Your task to perform on an android device: Is it going to rain tomorrow? Image 0: 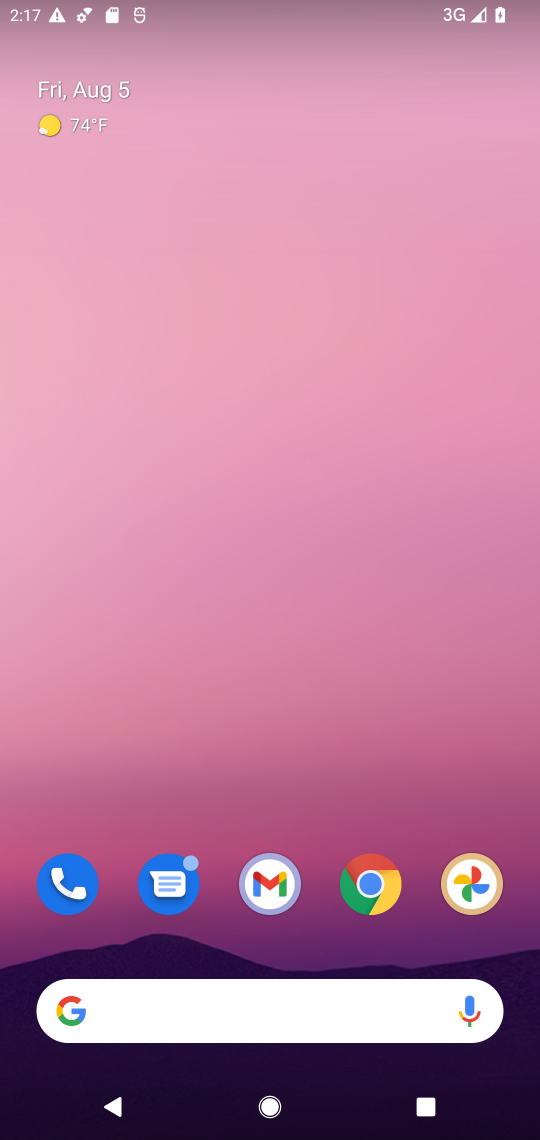
Step 0: drag from (387, 919) to (166, 64)
Your task to perform on an android device: Is it going to rain tomorrow? Image 1: 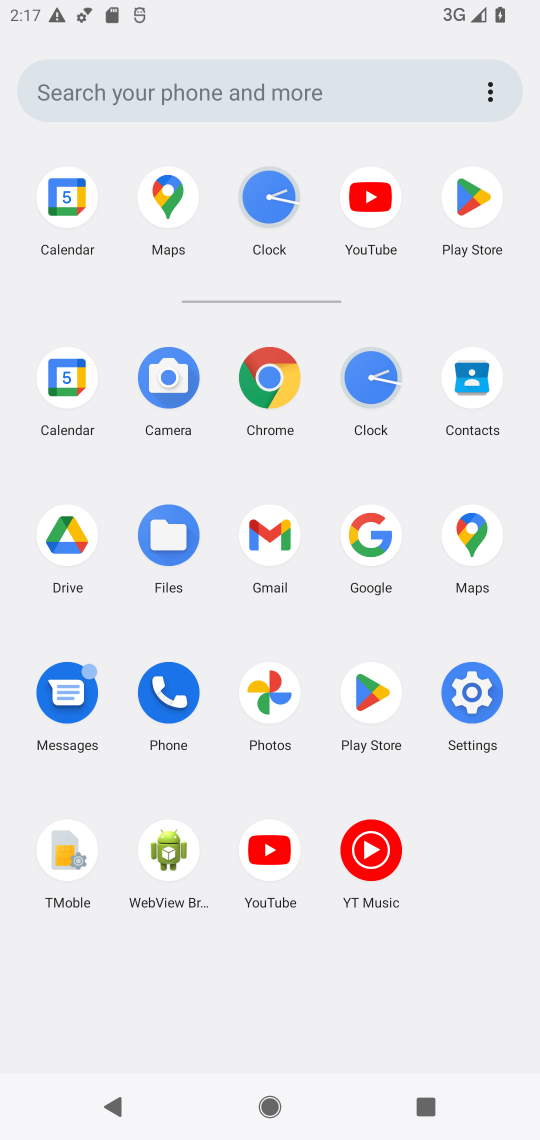
Step 1: click (373, 541)
Your task to perform on an android device: Is it going to rain tomorrow? Image 2: 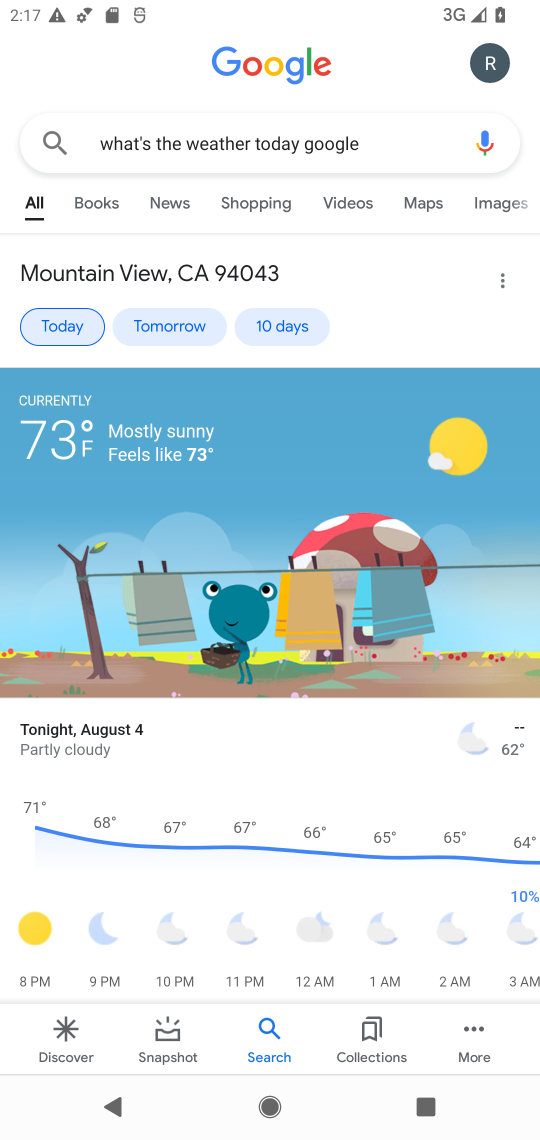
Step 2: press back button
Your task to perform on an android device: Is it going to rain tomorrow? Image 3: 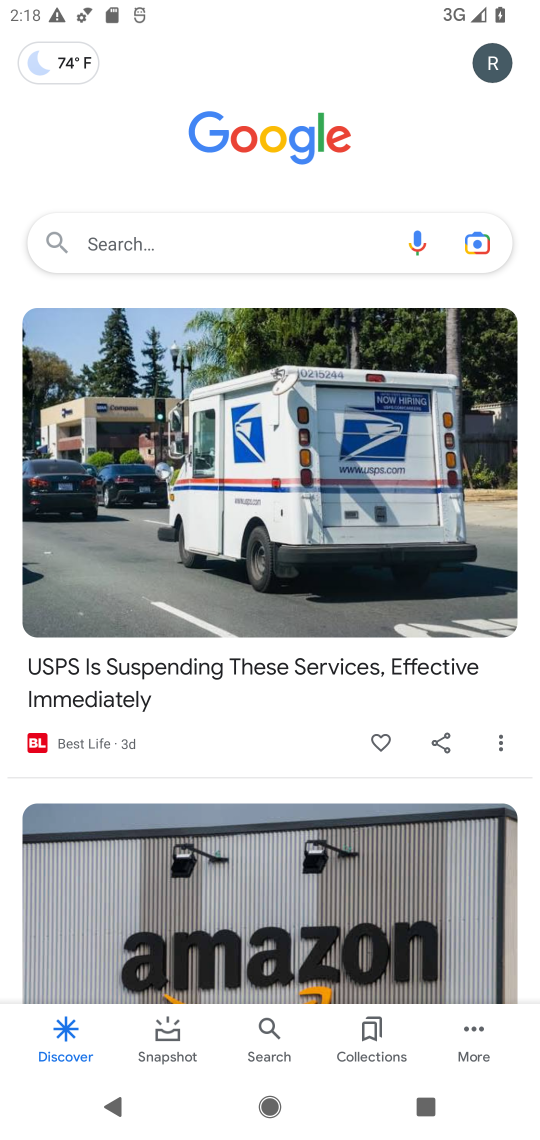
Step 3: click (127, 256)
Your task to perform on an android device: Is it going to rain tomorrow? Image 4: 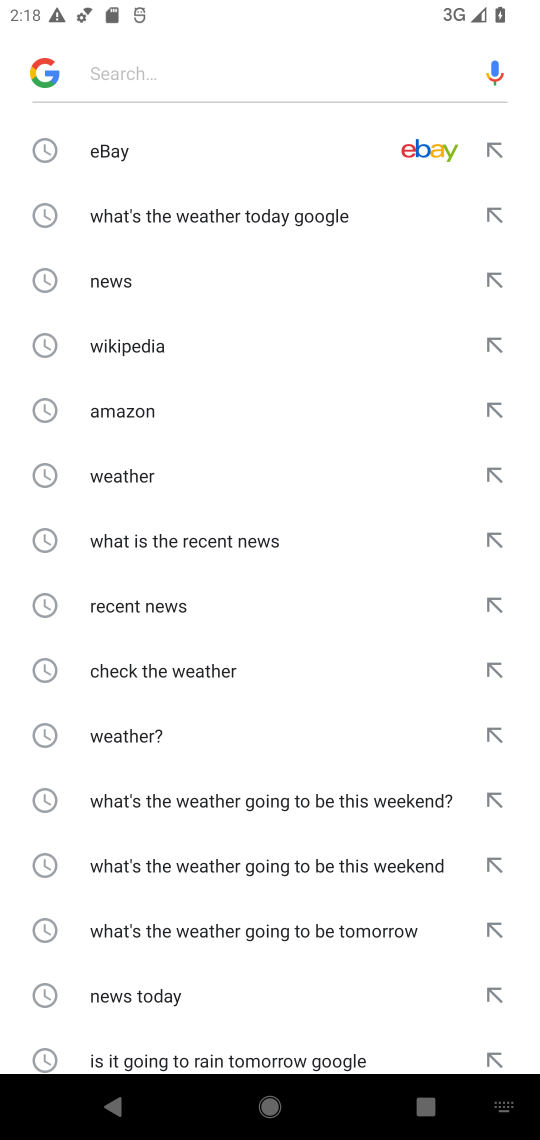
Step 4: drag from (173, 938) to (183, 163)
Your task to perform on an android device: Is it going to rain tomorrow? Image 5: 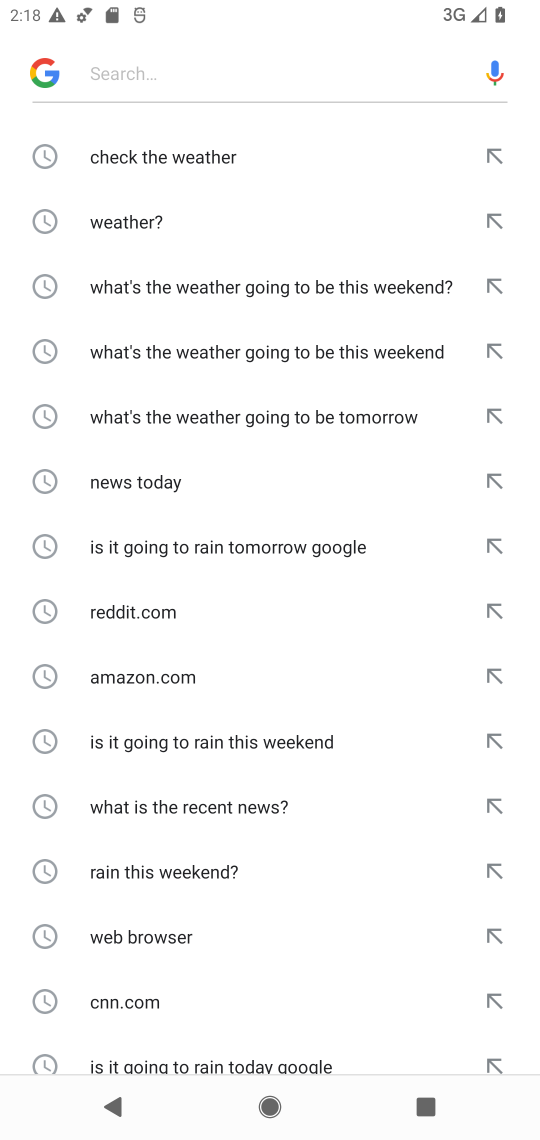
Step 5: drag from (261, 1014) to (277, 365)
Your task to perform on an android device: Is it going to rain tomorrow? Image 6: 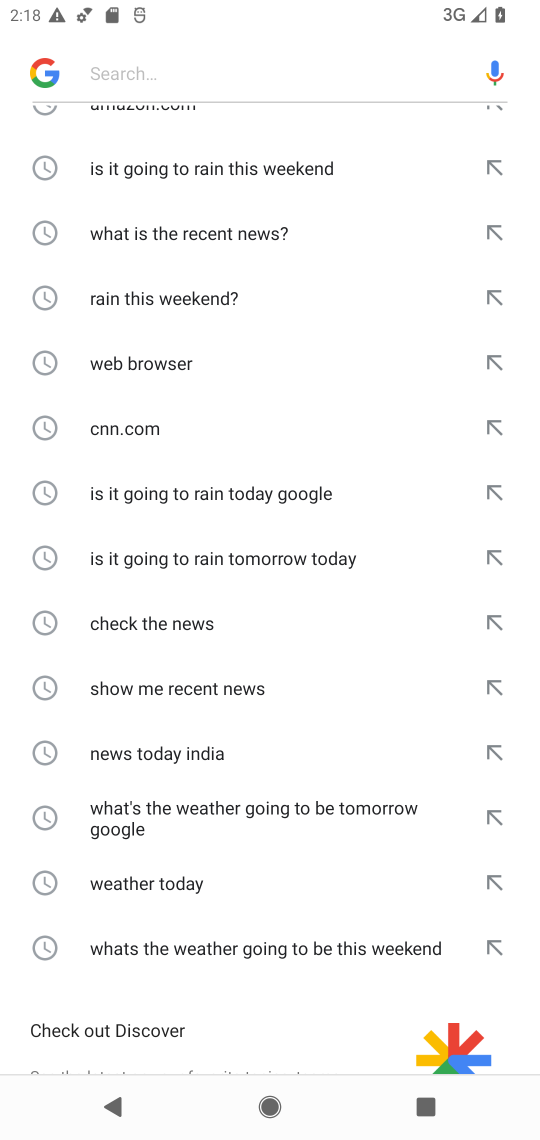
Step 6: type "Is it going to rain tomorrow?"
Your task to perform on an android device: Is it going to rain tomorrow? Image 7: 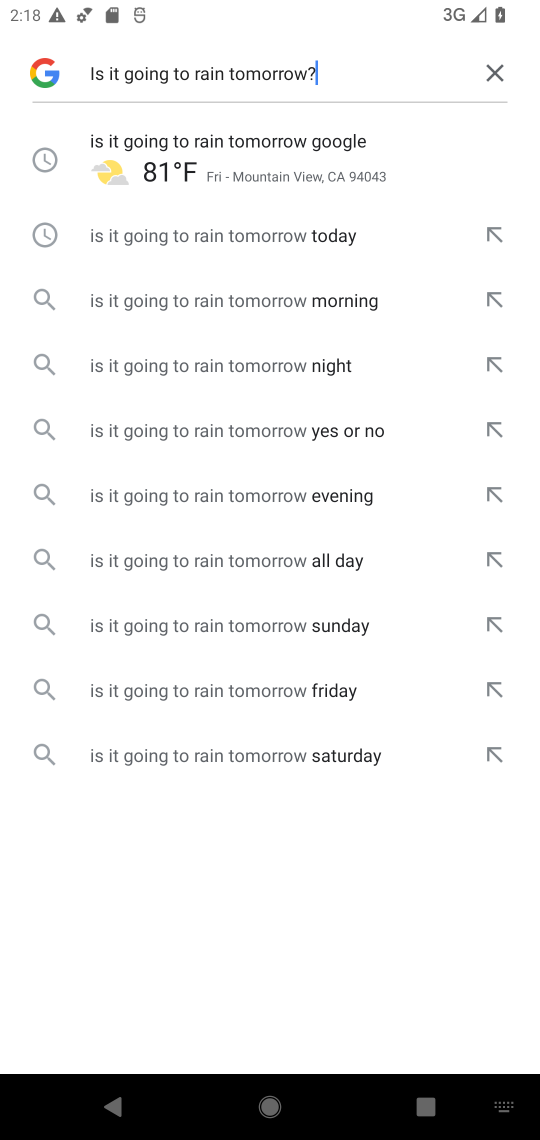
Step 7: click (208, 147)
Your task to perform on an android device: Is it going to rain tomorrow? Image 8: 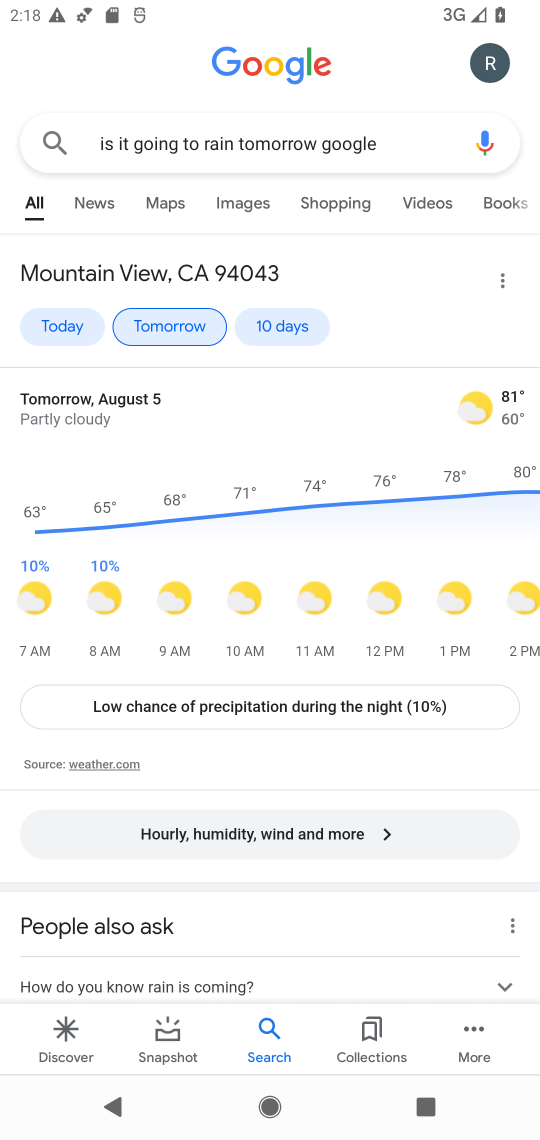
Step 8: task complete